Your task to perform on an android device: Go to internet settings Image 0: 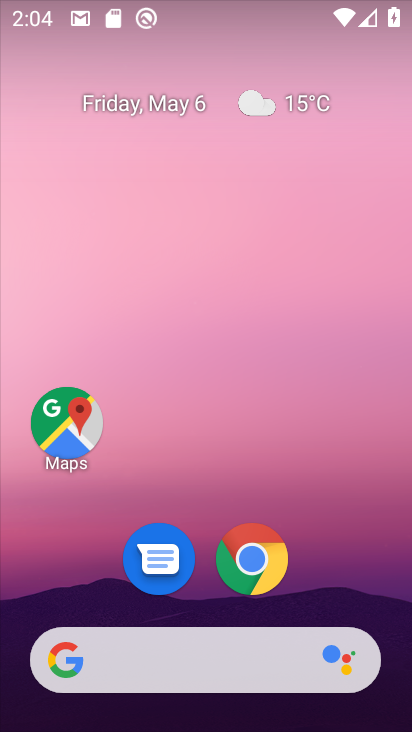
Step 0: drag from (204, 603) to (218, 17)
Your task to perform on an android device: Go to internet settings Image 1: 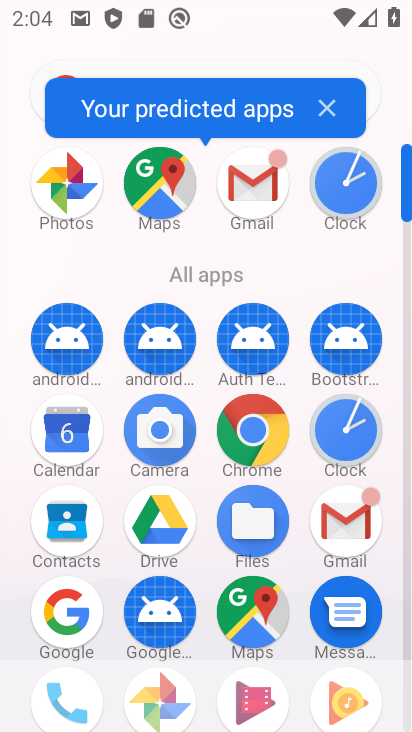
Step 1: drag from (203, 569) to (200, 131)
Your task to perform on an android device: Go to internet settings Image 2: 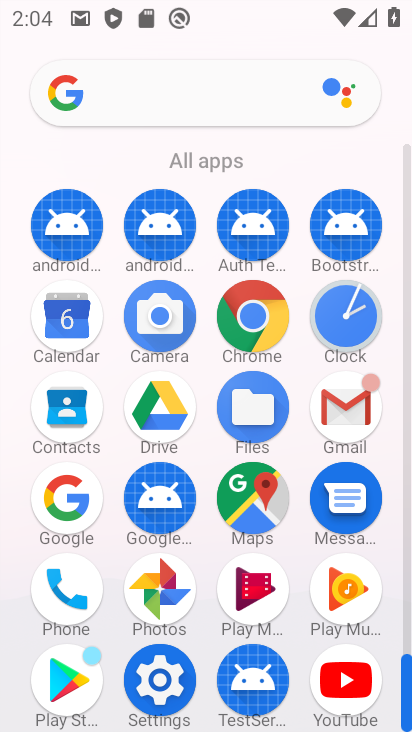
Step 2: click (158, 674)
Your task to perform on an android device: Go to internet settings Image 3: 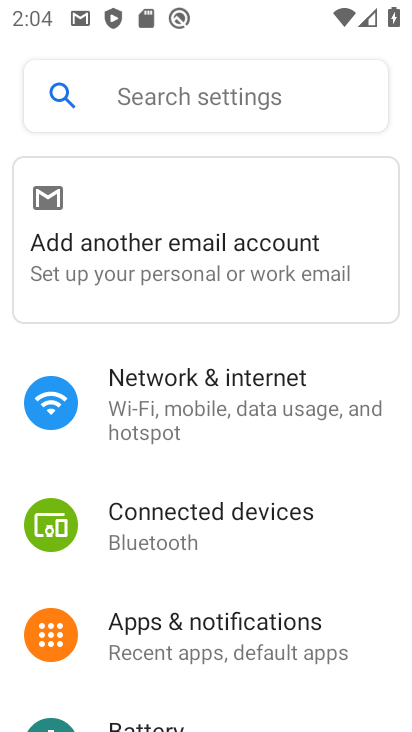
Step 3: click (193, 423)
Your task to perform on an android device: Go to internet settings Image 4: 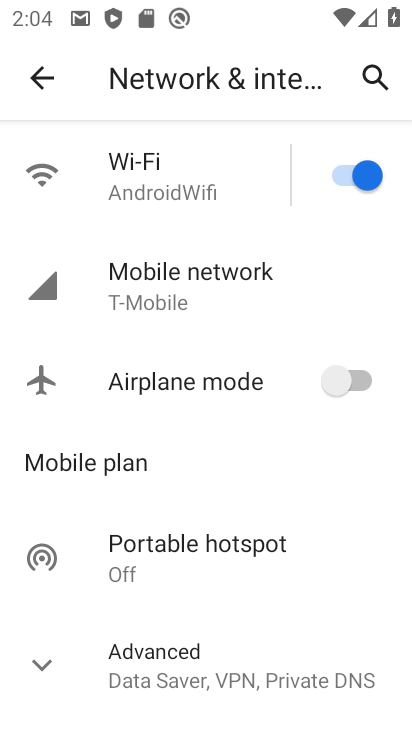
Step 4: click (38, 658)
Your task to perform on an android device: Go to internet settings Image 5: 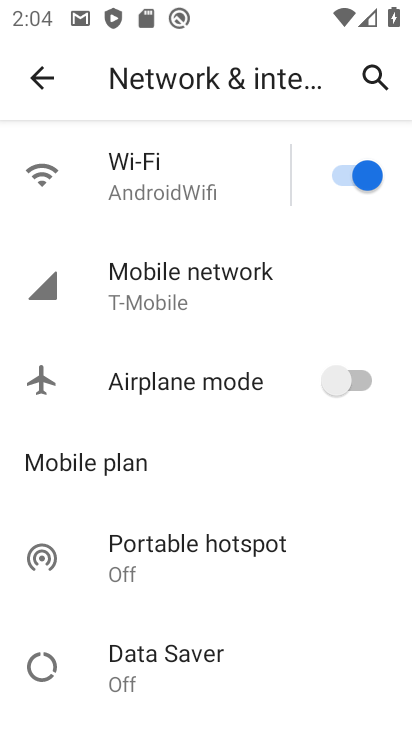
Step 5: task complete